Your task to perform on an android device: check android version Image 0: 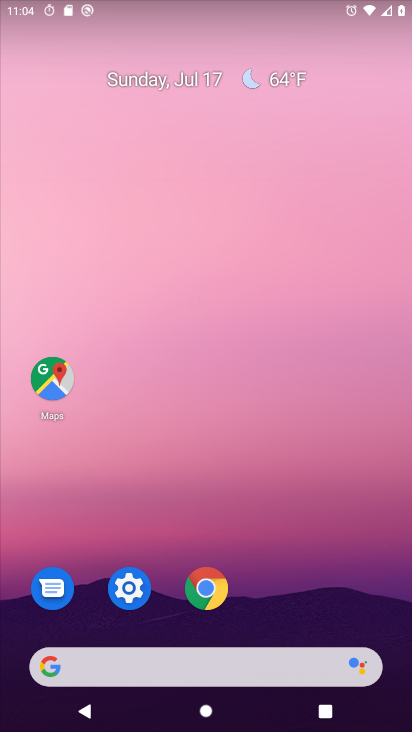
Step 0: drag from (257, 698) to (242, 284)
Your task to perform on an android device: check android version Image 1: 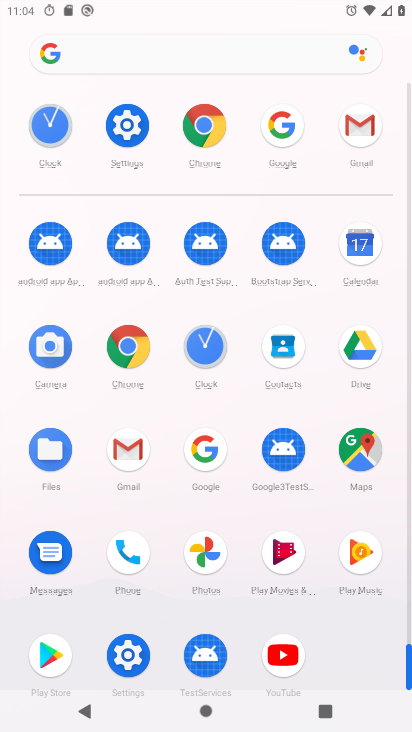
Step 1: click (123, 138)
Your task to perform on an android device: check android version Image 2: 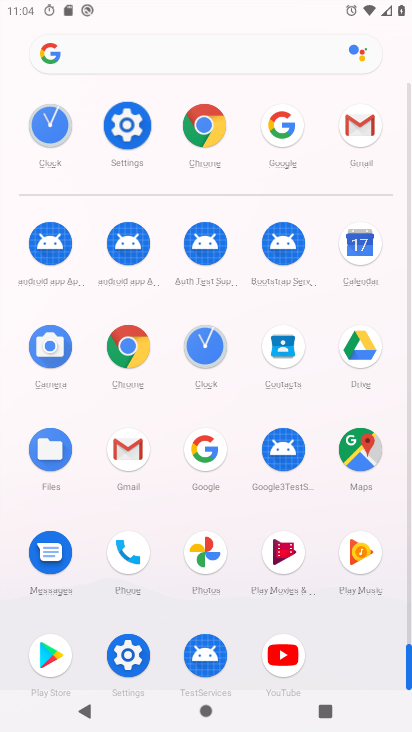
Step 2: click (123, 138)
Your task to perform on an android device: check android version Image 3: 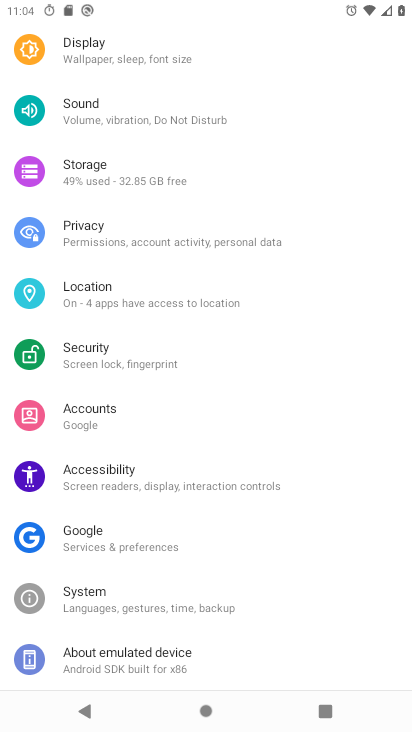
Step 3: drag from (126, 506) to (115, 181)
Your task to perform on an android device: check android version Image 4: 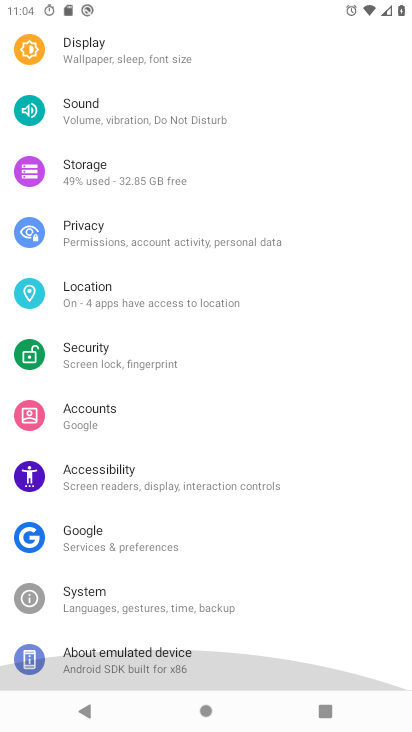
Step 4: click (179, 136)
Your task to perform on an android device: check android version Image 5: 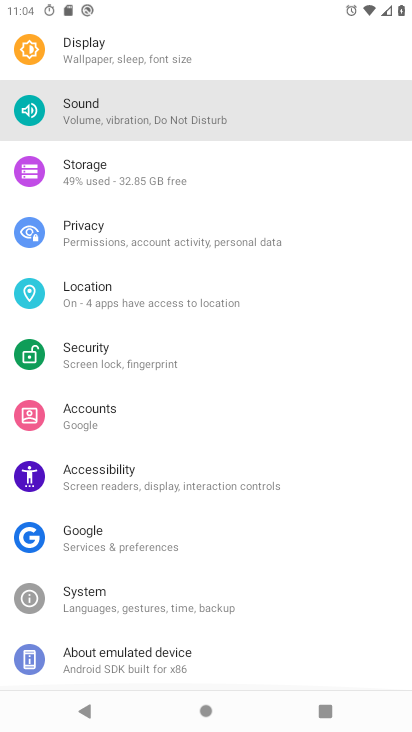
Step 5: drag from (149, 633) to (149, 209)
Your task to perform on an android device: check android version Image 6: 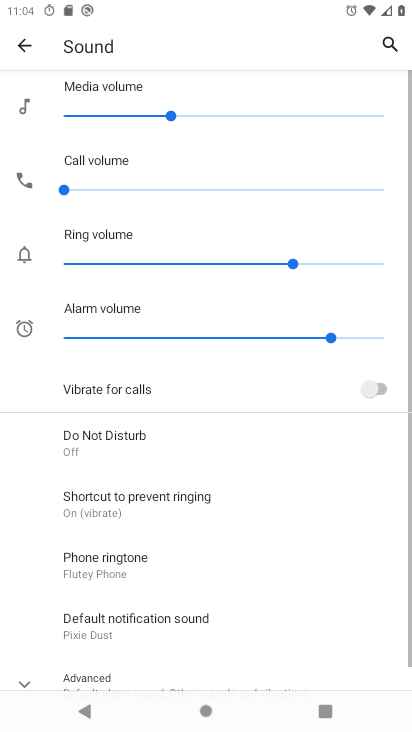
Step 6: click (110, 651)
Your task to perform on an android device: check android version Image 7: 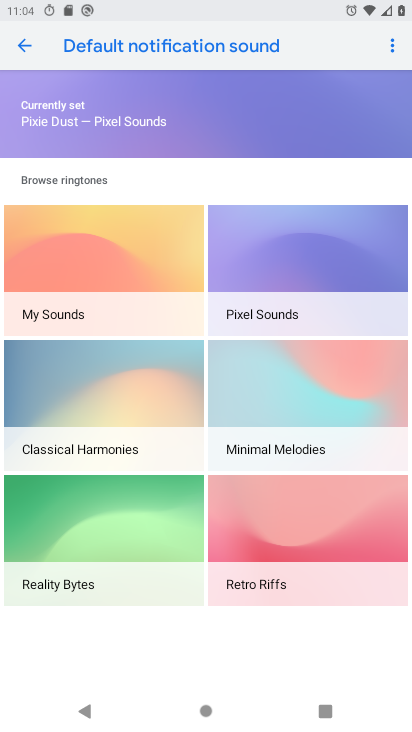
Step 7: press back button
Your task to perform on an android device: check android version Image 8: 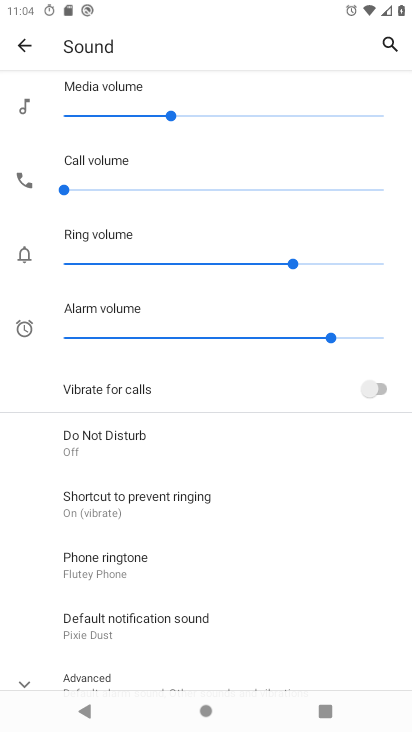
Step 8: click (18, 48)
Your task to perform on an android device: check android version Image 9: 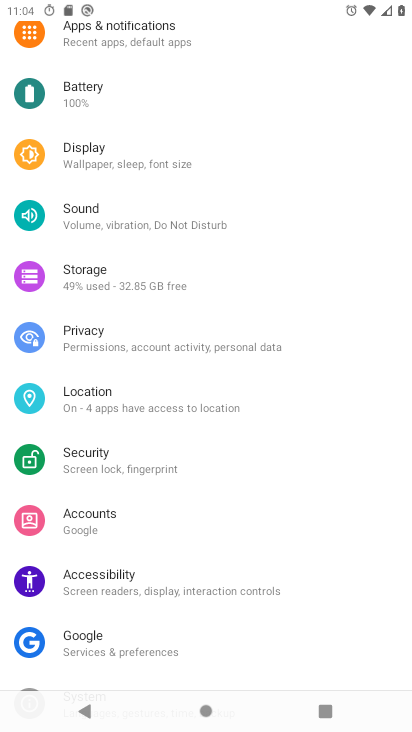
Step 9: drag from (149, 550) to (133, 98)
Your task to perform on an android device: check android version Image 10: 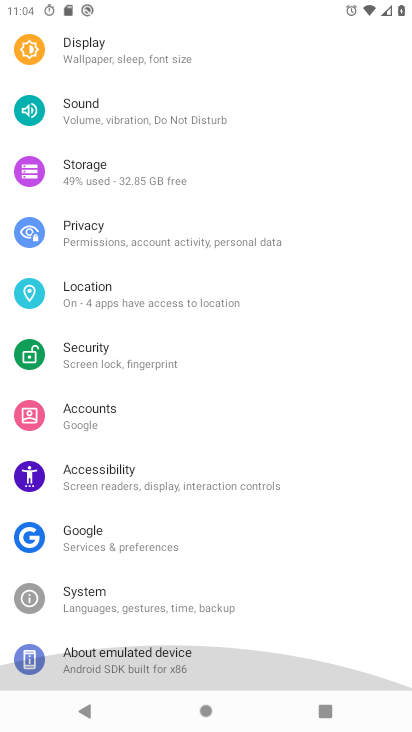
Step 10: drag from (165, 532) to (157, 183)
Your task to perform on an android device: check android version Image 11: 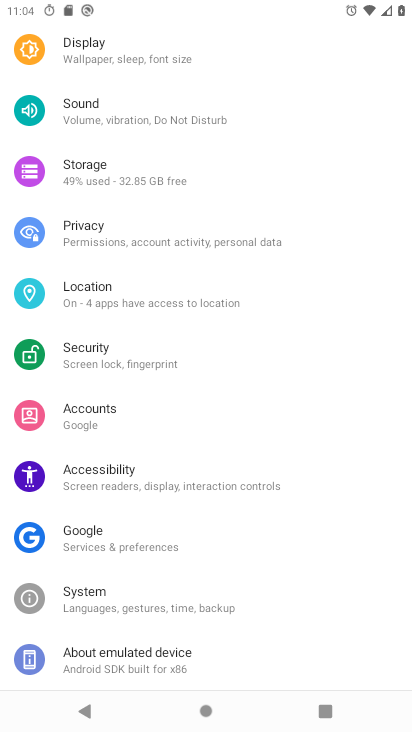
Step 11: click (113, 653)
Your task to perform on an android device: check android version Image 12: 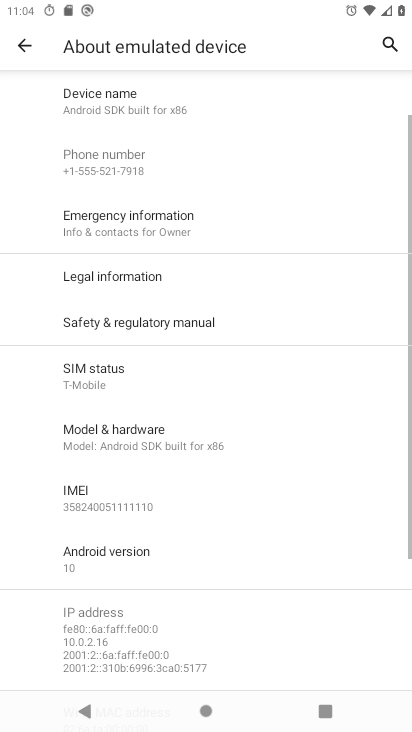
Step 12: task complete